Your task to perform on an android device: Open Maps and search for coffee Image 0: 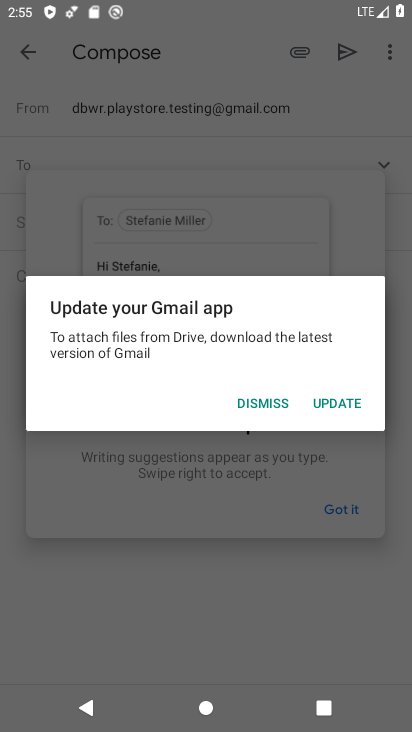
Step 0: press home button
Your task to perform on an android device: Open Maps and search for coffee Image 1: 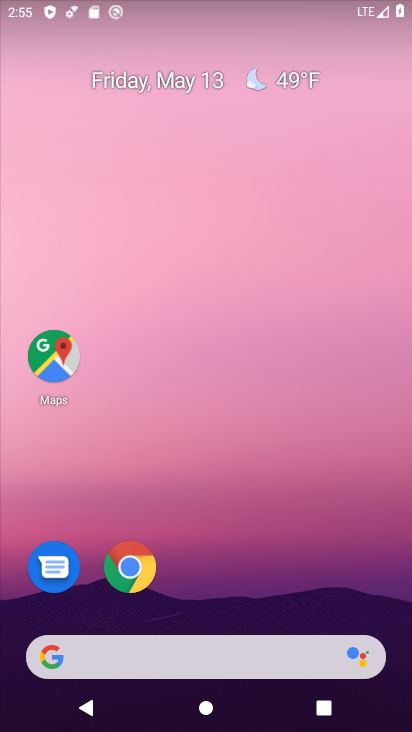
Step 1: drag from (209, 624) to (168, 72)
Your task to perform on an android device: Open Maps and search for coffee Image 2: 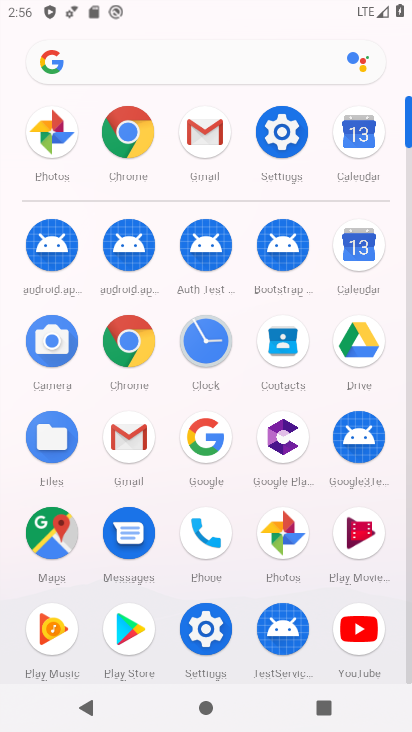
Step 2: click (55, 545)
Your task to perform on an android device: Open Maps and search for coffee Image 3: 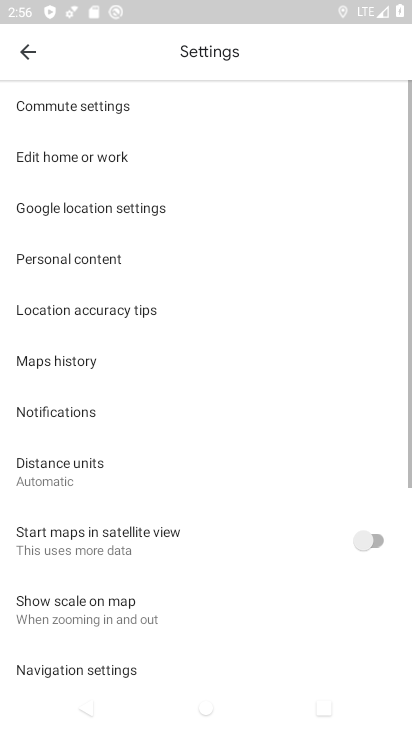
Step 3: click (19, 57)
Your task to perform on an android device: Open Maps and search for coffee Image 4: 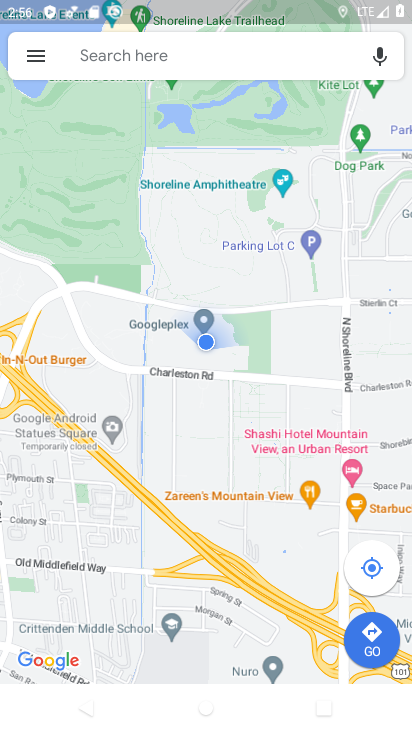
Step 4: click (192, 56)
Your task to perform on an android device: Open Maps and search for coffee Image 5: 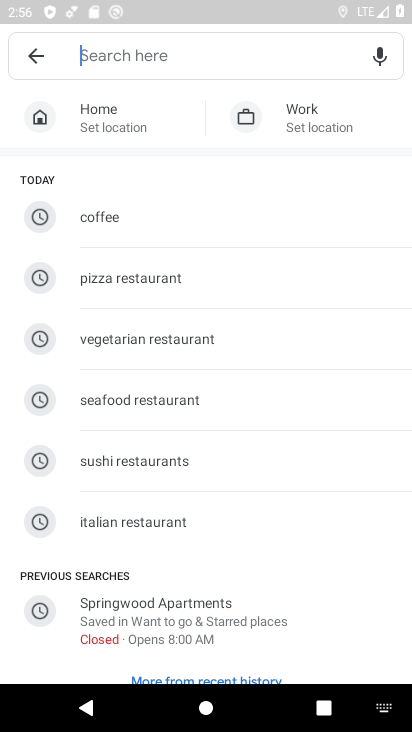
Step 5: click (99, 216)
Your task to perform on an android device: Open Maps and search for coffee Image 6: 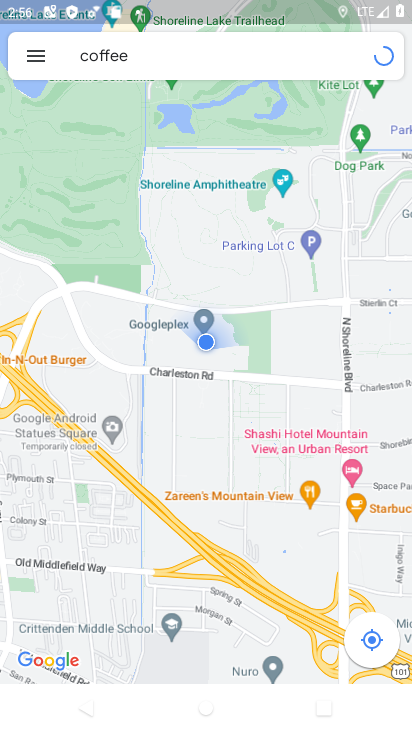
Step 6: task complete